Your task to perform on an android device: Open Amazon Image 0: 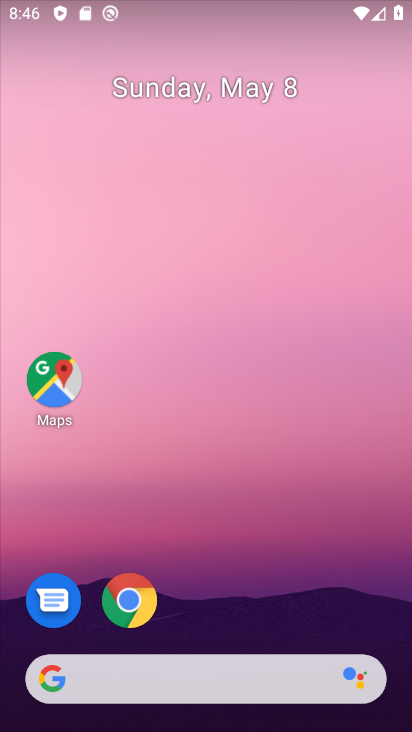
Step 0: drag from (221, 632) to (346, 21)
Your task to perform on an android device: Open Amazon Image 1: 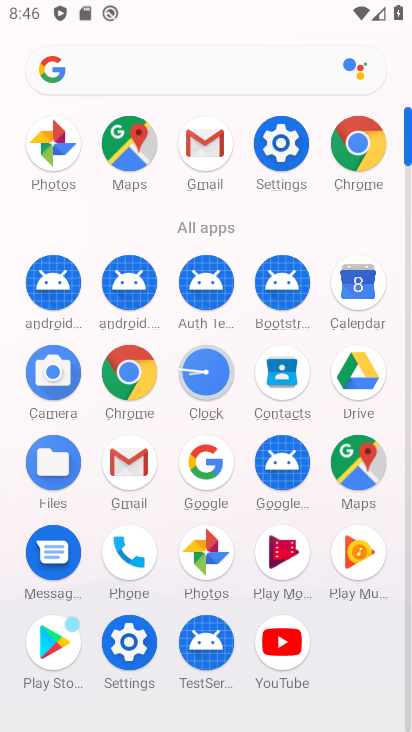
Step 1: click (190, 461)
Your task to perform on an android device: Open Amazon Image 2: 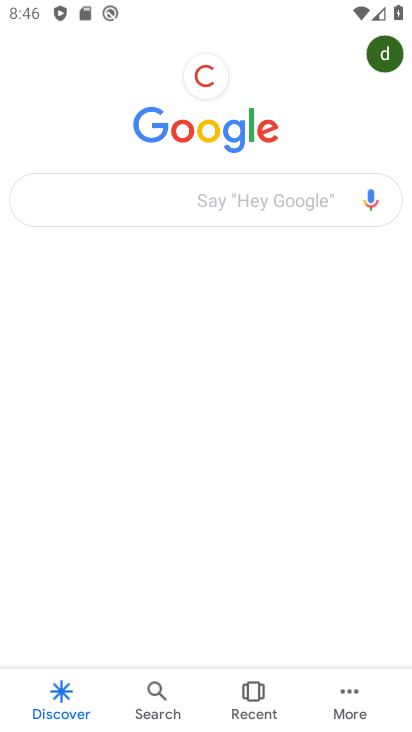
Step 2: click (129, 203)
Your task to perform on an android device: Open Amazon Image 3: 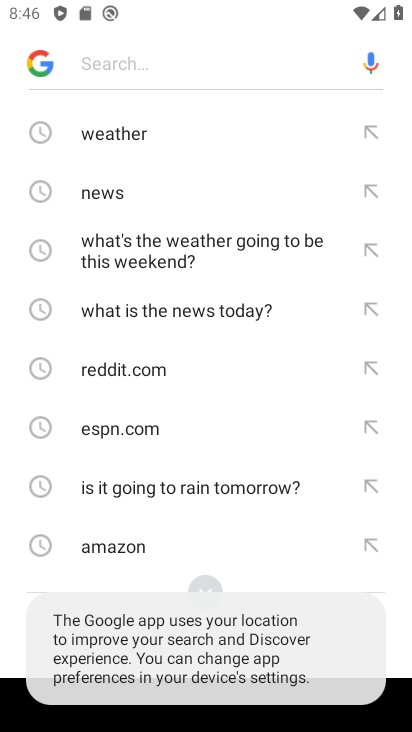
Step 3: click (112, 541)
Your task to perform on an android device: Open Amazon Image 4: 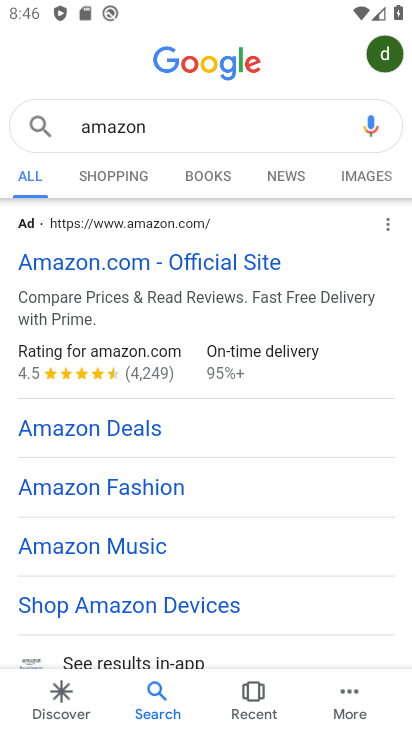
Step 4: task complete